Your task to perform on an android device: turn pop-ups off in chrome Image 0: 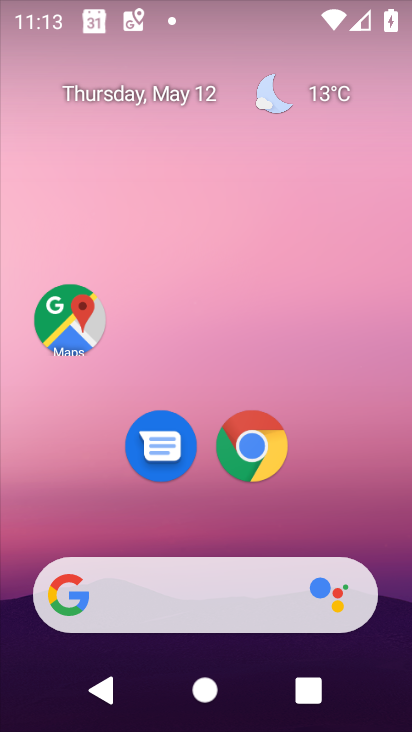
Step 0: drag from (211, 590) to (406, 428)
Your task to perform on an android device: turn pop-ups off in chrome Image 1: 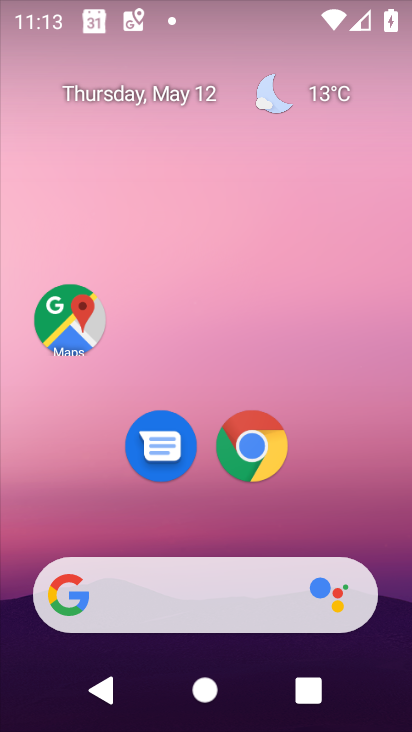
Step 1: click (243, 396)
Your task to perform on an android device: turn pop-ups off in chrome Image 2: 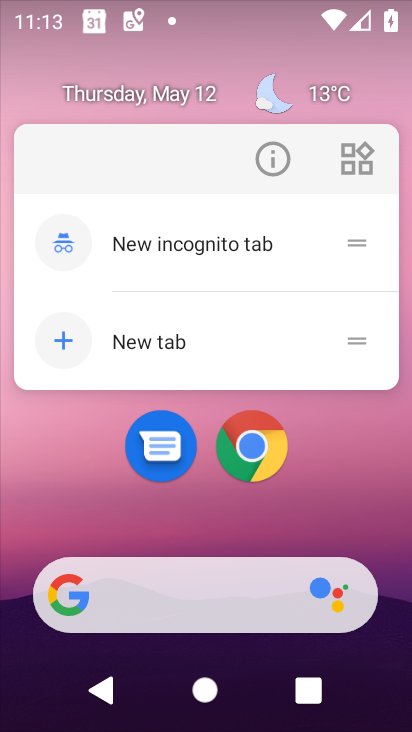
Step 2: click (260, 446)
Your task to perform on an android device: turn pop-ups off in chrome Image 3: 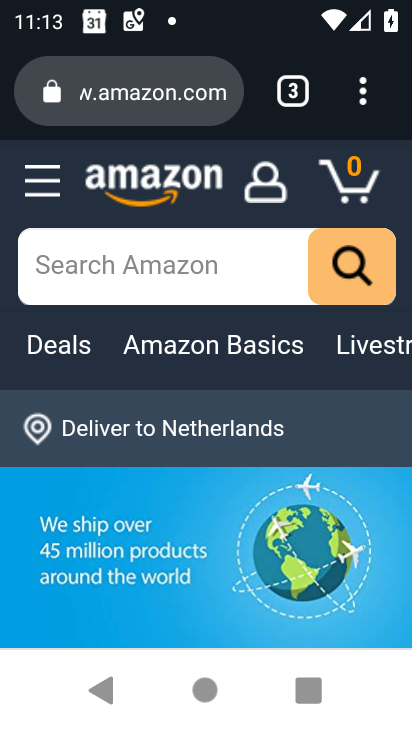
Step 3: click (364, 99)
Your task to perform on an android device: turn pop-ups off in chrome Image 4: 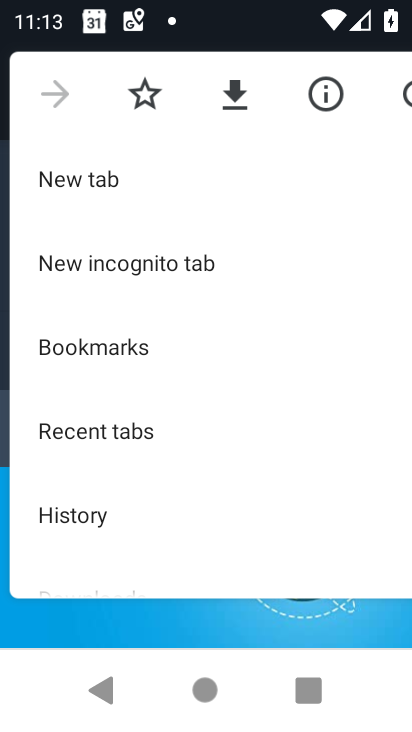
Step 4: drag from (239, 548) to (225, 112)
Your task to perform on an android device: turn pop-ups off in chrome Image 5: 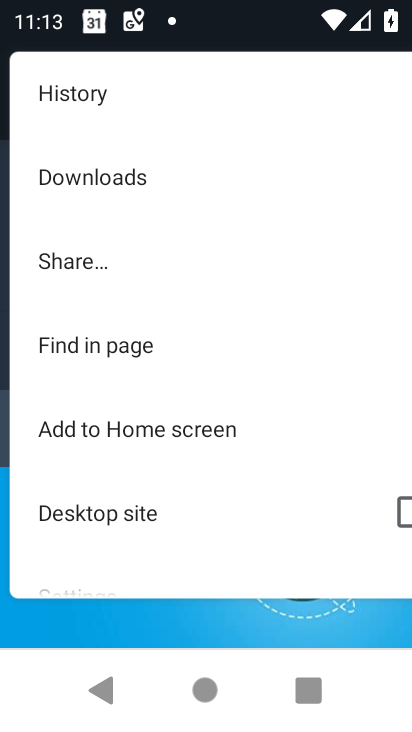
Step 5: drag from (115, 547) to (154, 258)
Your task to perform on an android device: turn pop-ups off in chrome Image 6: 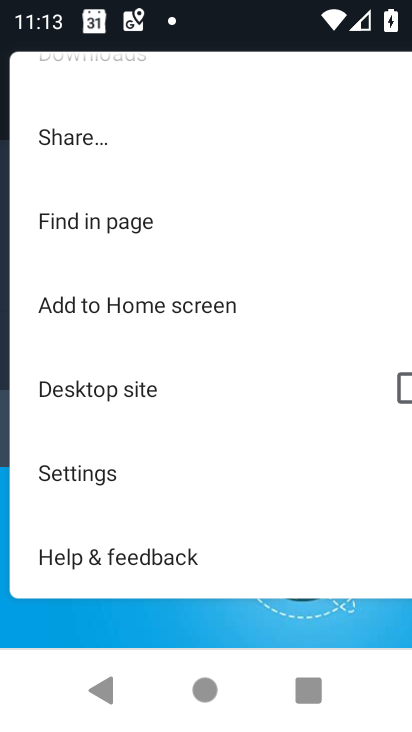
Step 6: click (176, 478)
Your task to perform on an android device: turn pop-ups off in chrome Image 7: 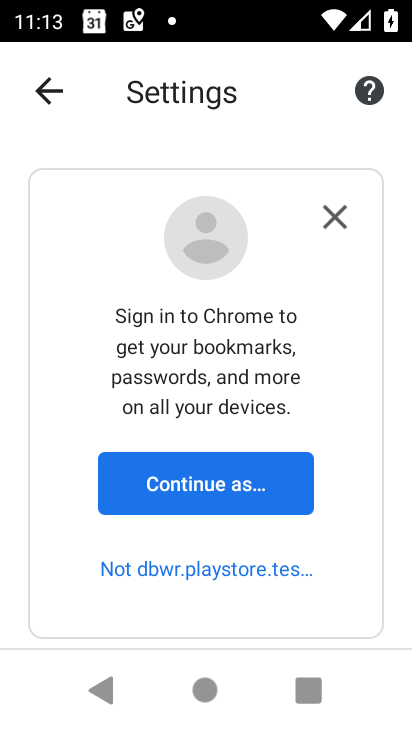
Step 7: drag from (242, 607) to (309, 85)
Your task to perform on an android device: turn pop-ups off in chrome Image 8: 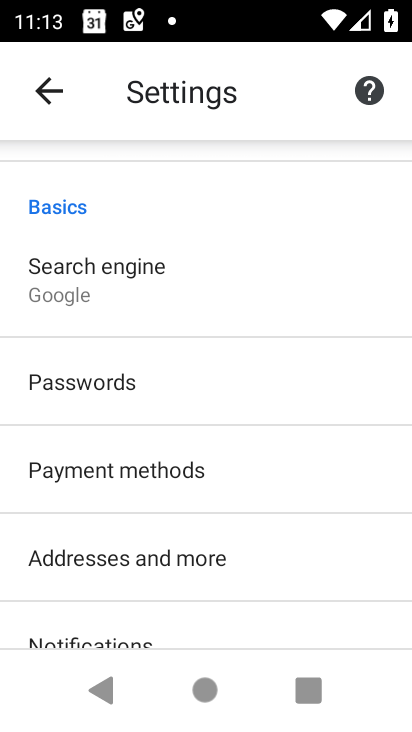
Step 8: drag from (198, 619) to (272, 144)
Your task to perform on an android device: turn pop-ups off in chrome Image 9: 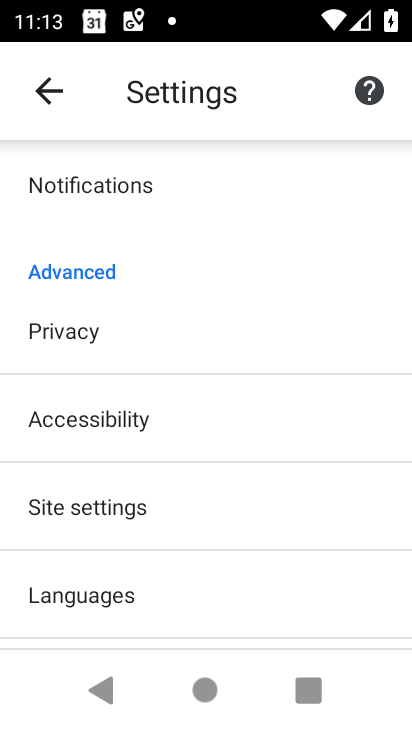
Step 9: click (131, 524)
Your task to perform on an android device: turn pop-ups off in chrome Image 10: 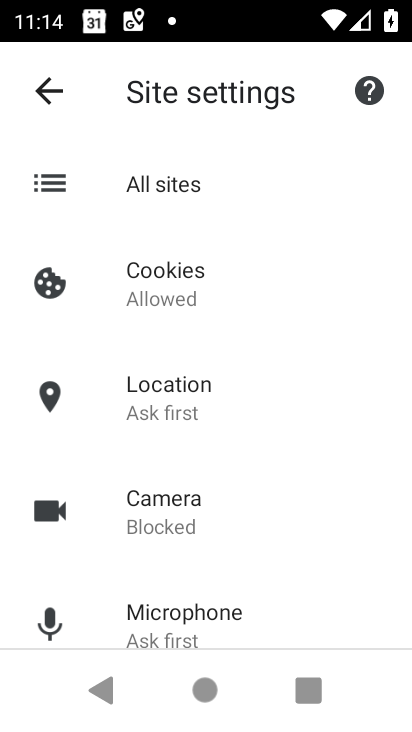
Step 10: drag from (107, 649) to (124, 47)
Your task to perform on an android device: turn pop-ups off in chrome Image 11: 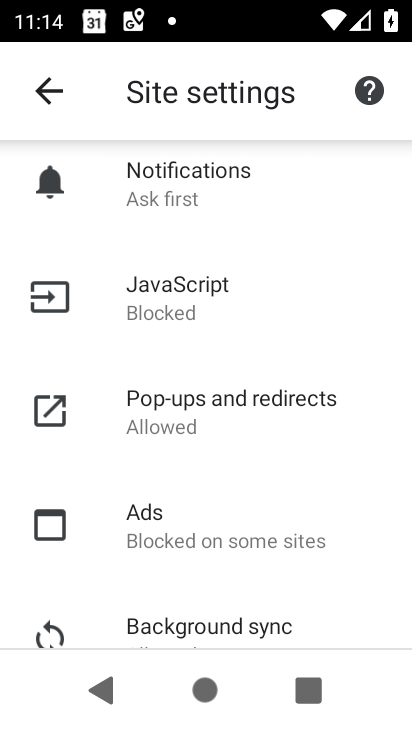
Step 11: click (172, 416)
Your task to perform on an android device: turn pop-ups off in chrome Image 12: 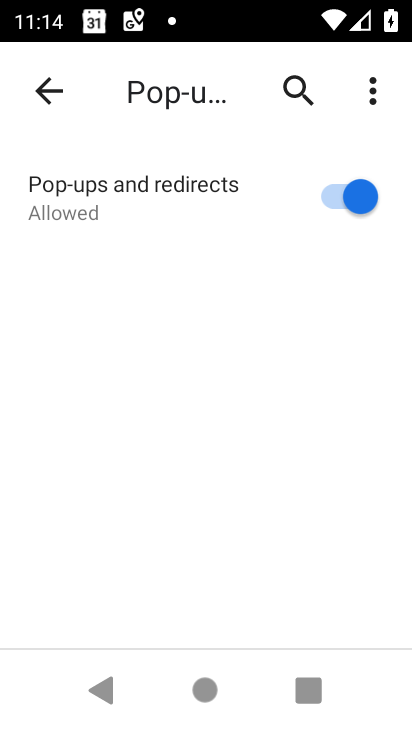
Step 12: click (339, 195)
Your task to perform on an android device: turn pop-ups off in chrome Image 13: 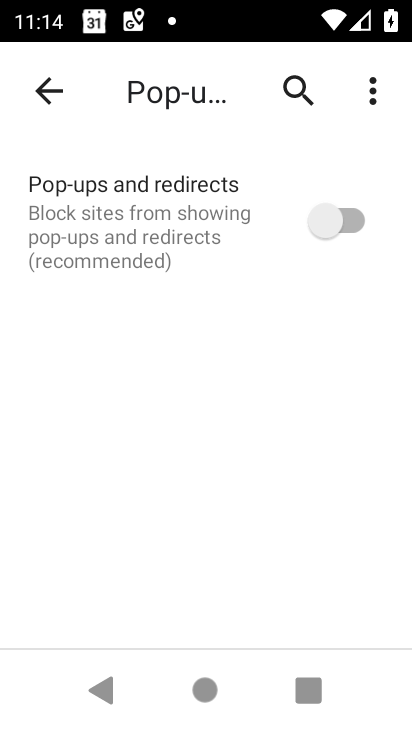
Step 13: task complete